Your task to perform on an android device: open app "Google Pay: Save, Pay, Manage" (install if not already installed) Image 0: 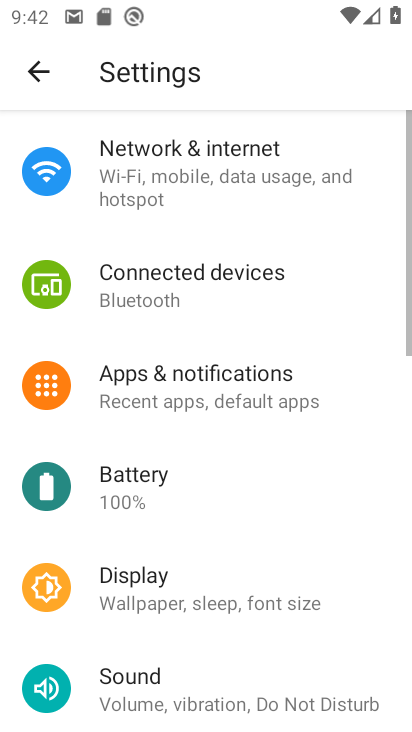
Step 0: press home button
Your task to perform on an android device: open app "Google Pay: Save, Pay, Manage" (install if not already installed) Image 1: 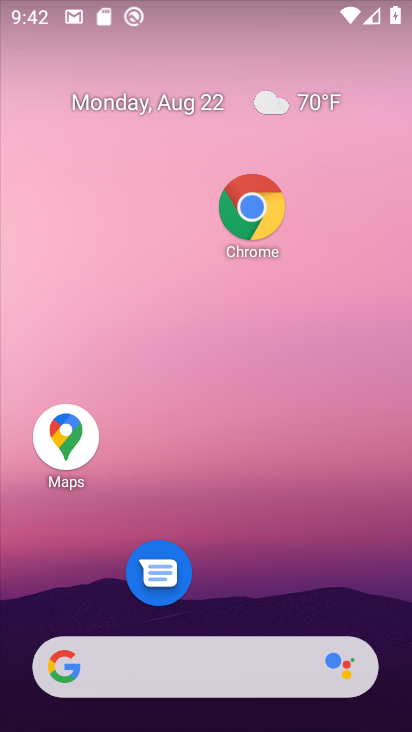
Step 1: drag from (244, 651) to (259, 51)
Your task to perform on an android device: open app "Google Pay: Save, Pay, Manage" (install if not already installed) Image 2: 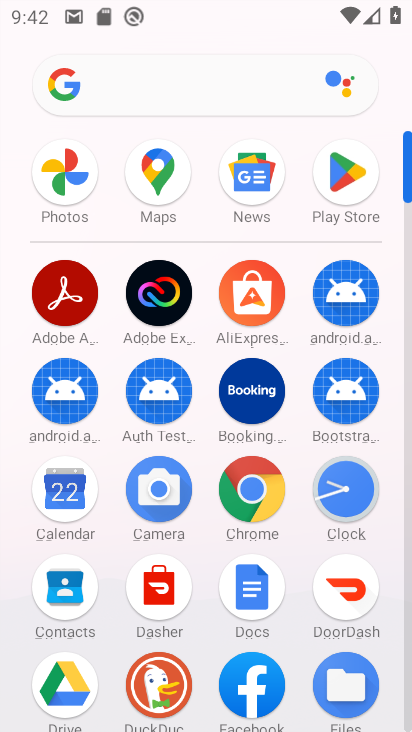
Step 2: click (371, 206)
Your task to perform on an android device: open app "Google Pay: Save, Pay, Manage" (install if not already installed) Image 3: 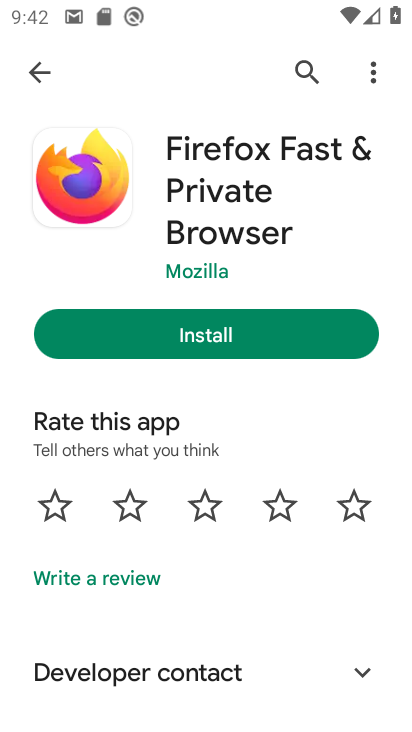
Step 3: click (28, 73)
Your task to perform on an android device: open app "Google Pay: Save, Pay, Manage" (install if not already installed) Image 4: 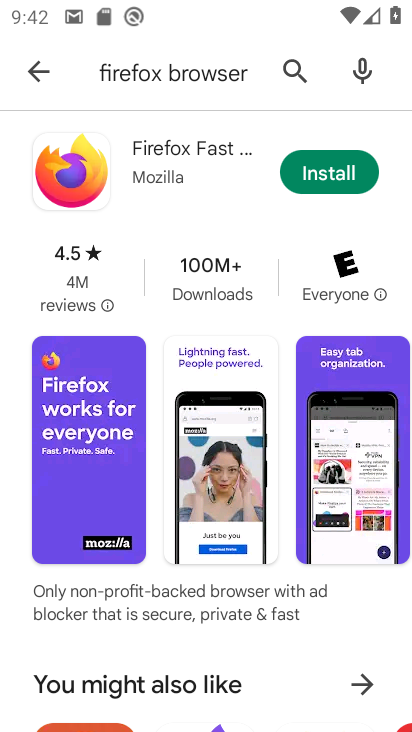
Step 4: click (204, 56)
Your task to perform on an android device: open app "Google Pay: Save, Pay, Manage" (install if not already installed) Image 5: 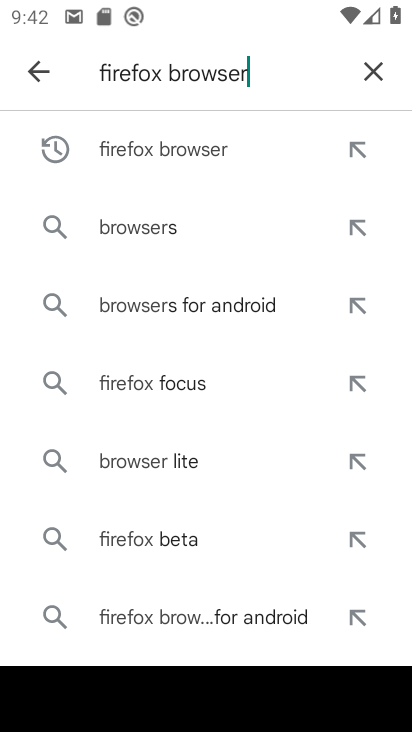
Step 5: click (366, 68)
Your task to perform on an android device: open app "Google Pay: Save, Pay, Manage" (install if not already installed) Image 6: 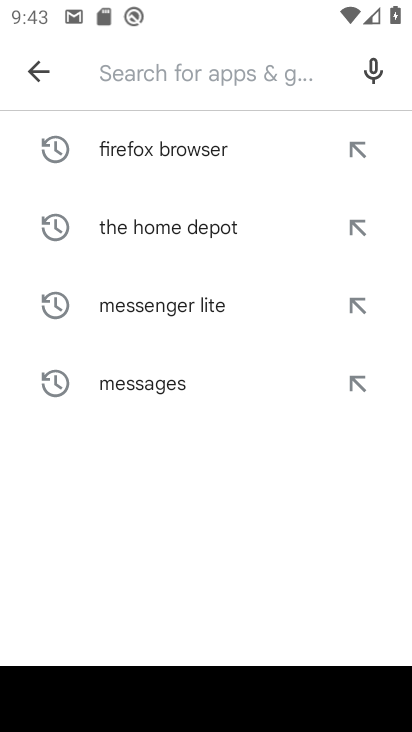
Step 6: type "google pay"
Your task to perform on an android device: open app "Google Pay: Save, Pay, Manage" (install if not already installed) Image 7: 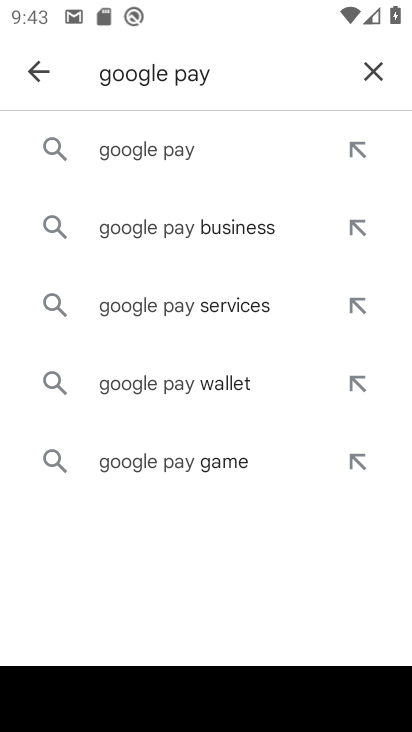
Step 7: click (199, 155)
Your task to perform on an android device: open app "Google Pay: Save, Pay, Manage" (install if not already installed) Image 8: 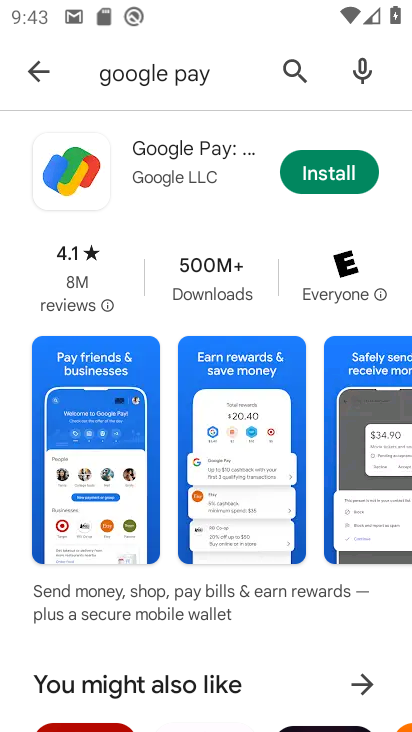
Step 8: click (307, 174)
Your task to perform on an android device: open app "Google Pay: Save, Pay, Manage" (install if not already installed) Image 9: 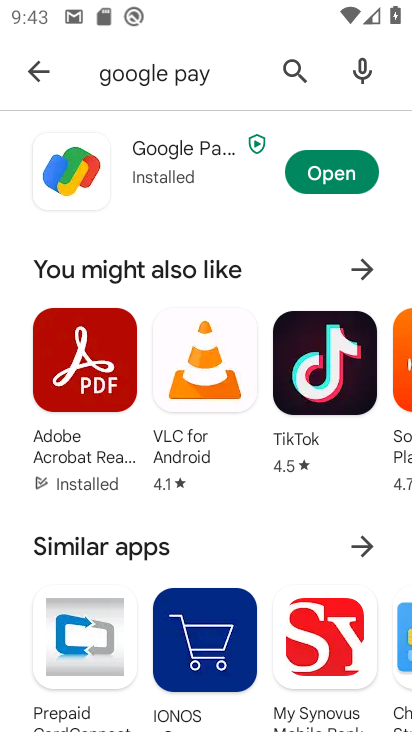
Step 9: click (340, 181)
Your task to perform on an android device: open app "Google Pay: Save, Pay, Manage" (install if not already installed) Image 10: 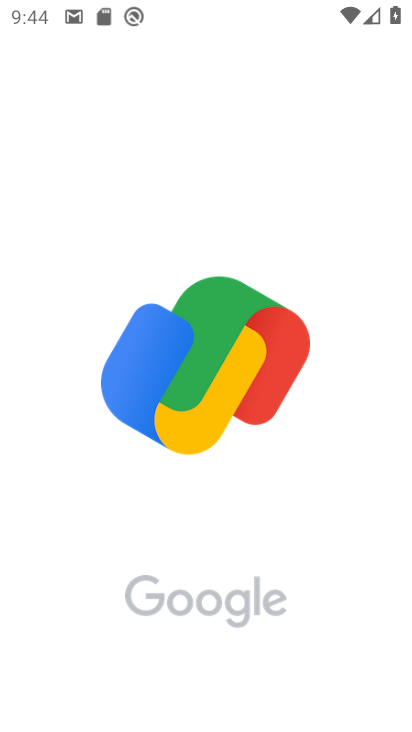
Step 10: task complete